Your task to perform on an android device: Do I have any events this weekend? Image 0: 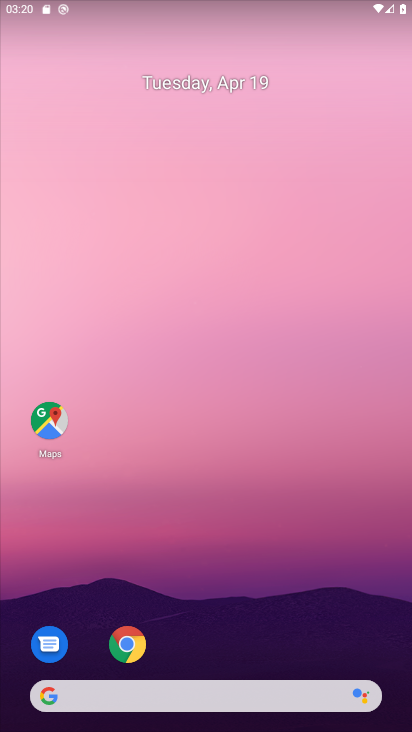
Step 0: drag from (341, 606) to (302, 281)
Your task to perform on an android device: Do I have any events this weekend? Image 1: 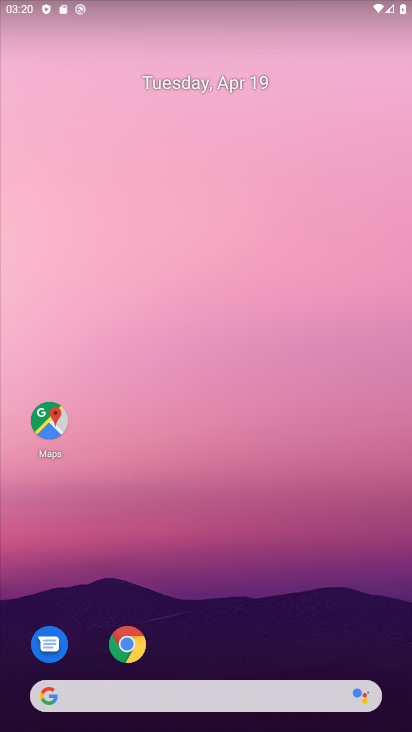
Step 1: drag from (279, 629) to (229, 189)
Your task to perform on an android device: Do I have any events this weekend? Image 2: 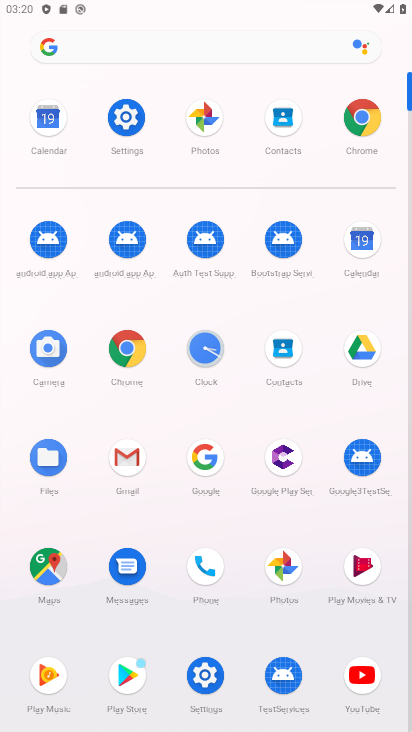
Step 2: click (363, 238)
Your task to perform on an android device: Do I have any events this weekend? Image 3: 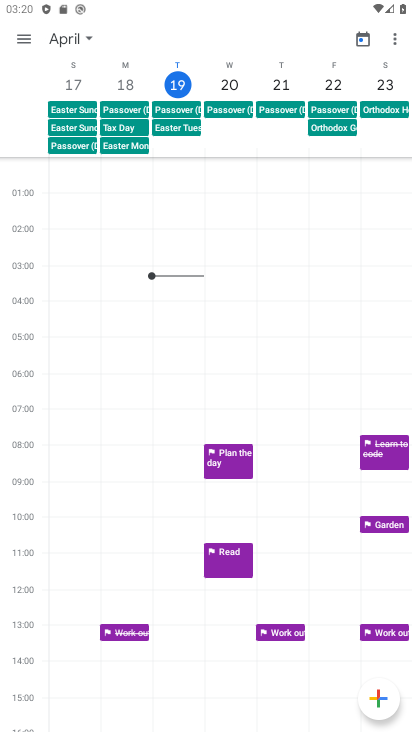
Step 3: task complete